Your task to perform on an android device: turn off picture-in-picture Image 0: 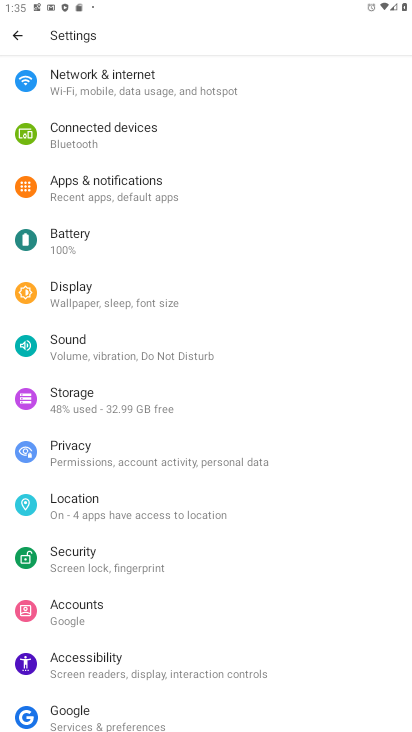
Step 0: click (99, 183)
Your task to perform on an android device: turn off picture-in-picture Image 1: 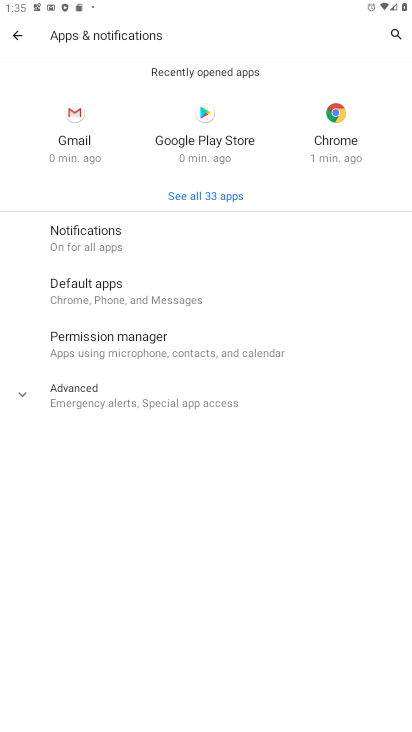
Step 1: click (86, 403)
Your task to perform on an android device: turn off picture-in-picture Image 2: 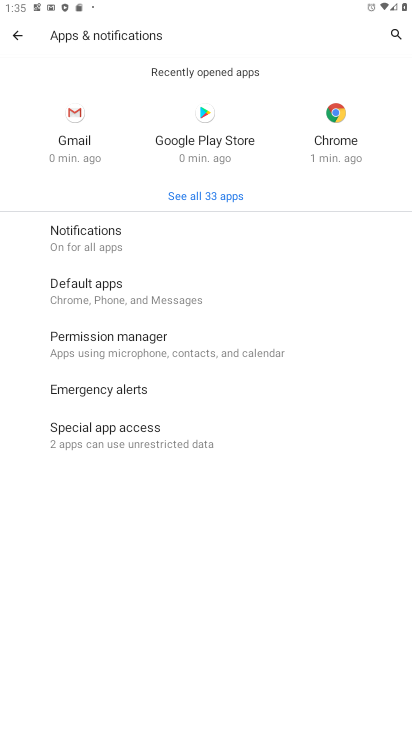
Step 2: click (110, 418)
Your task to perform on an android device: turn off picture-in-picture Image 3: 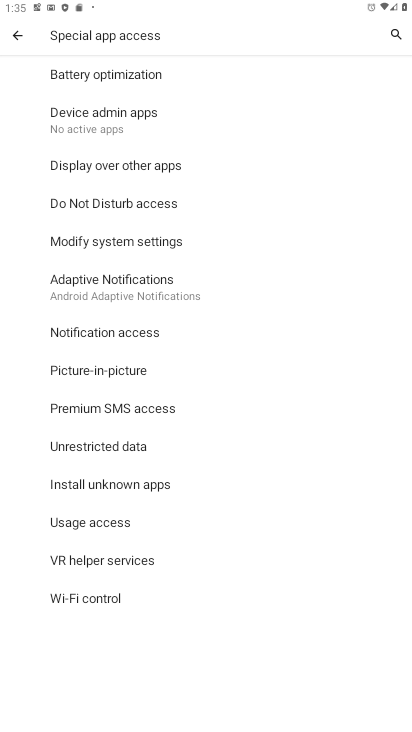
Step 3: click (107, 367)
Your task to perform on an android device: turn off picture-in-picture Image 4: 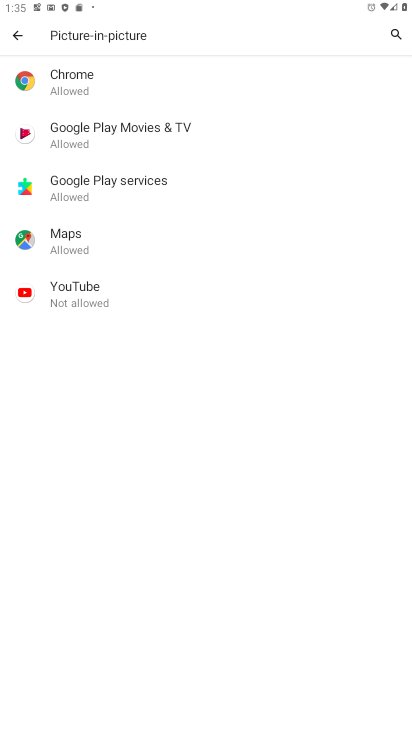
Step 4: click (37, 289)
Your task to perform on an android device: turn off picture-in-picture Image 5: 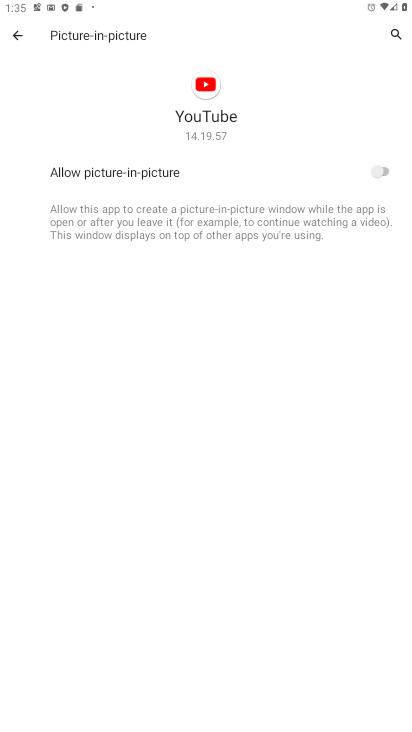
Step 5: task complete